Your task to perform on an android device: Open Google Chrome Image 0: 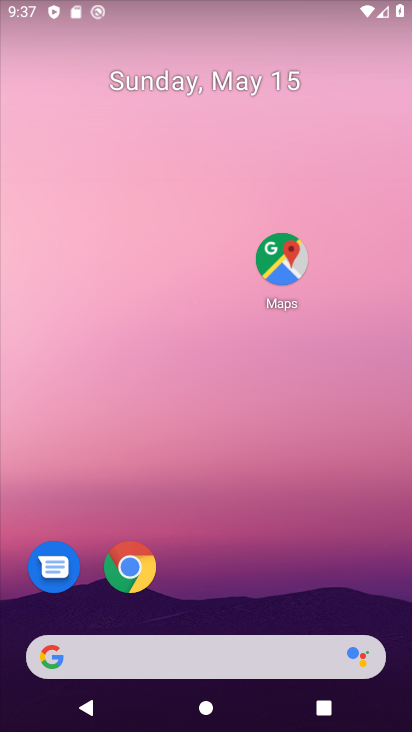
Step 0: click (133, 563)
Your task to perform on an android device: Open Google Chrome Image 1: 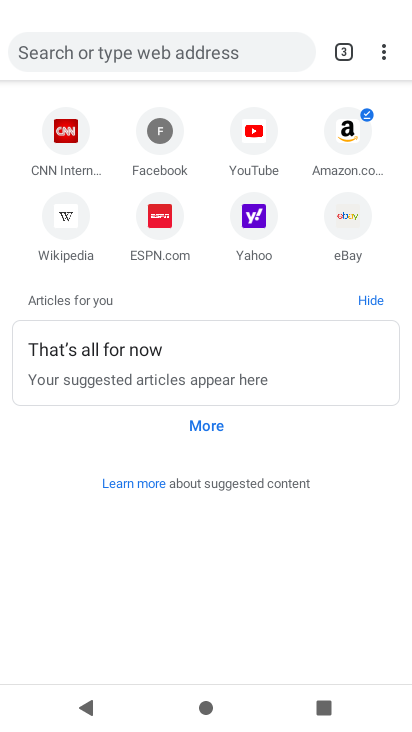
Step 1: task complete